Your task to perform on an android device: What's the latest tech news? Image 0: 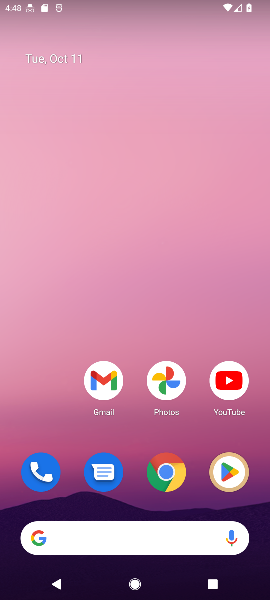
Step 0: click (178, 480)
Your task to perform on an android device: What's the latest tech news? Image 1: 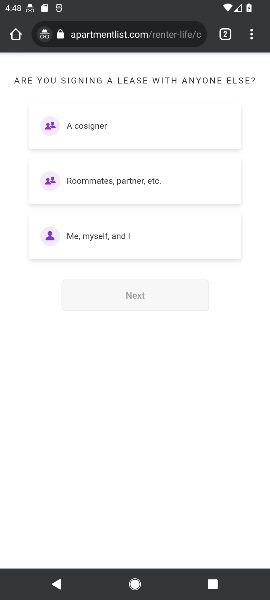
Step 1: click (119, 31)
Your task to perform on an android device: What's the latest tech news? Image 2: 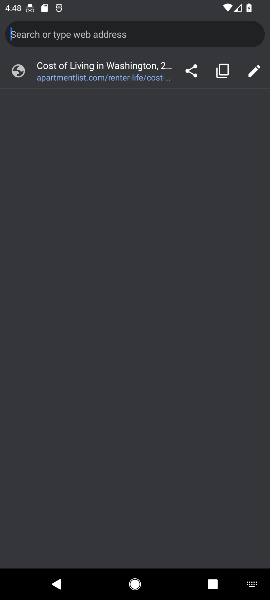
Step 2: type " latest tech news?"
Your task to perform on an android device: What's the latest tech news? Image 3: 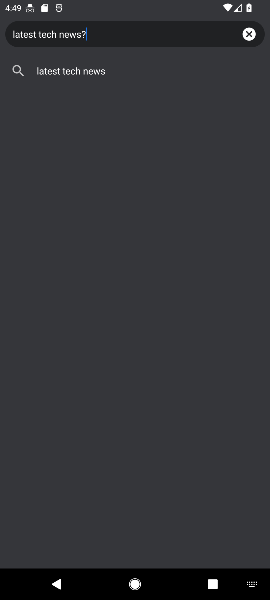
Step 3: type ""
Your task to perform on an android device: What's the latest tech news? Image 4: 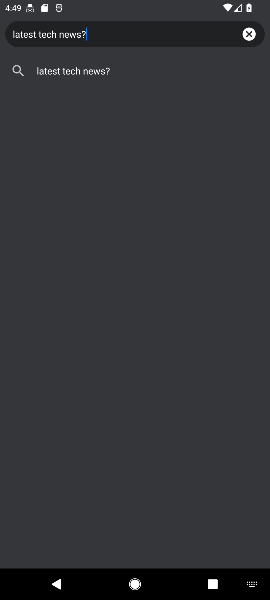
Step 4: click (71, 71)
Your task to perform on an android device: What's the latest tech news? Image 5: 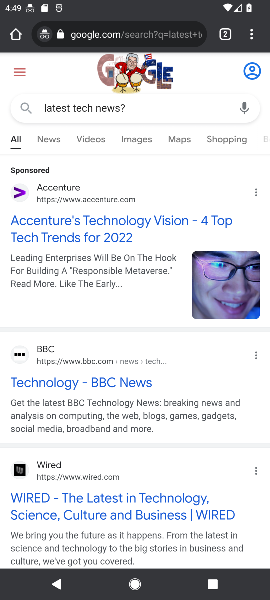
Step 5: click (51, 144)
Your task to perform on an android device: What's the latest tech news? Image 6: 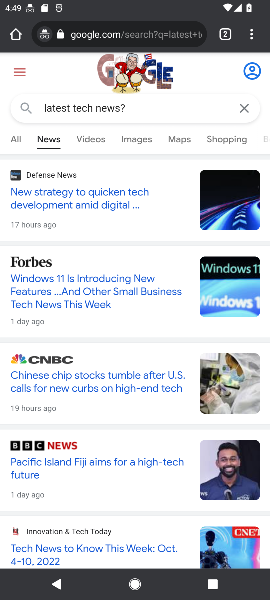
Step 6: task complete